Your task to perform on an android device: change timer sound Image 0: 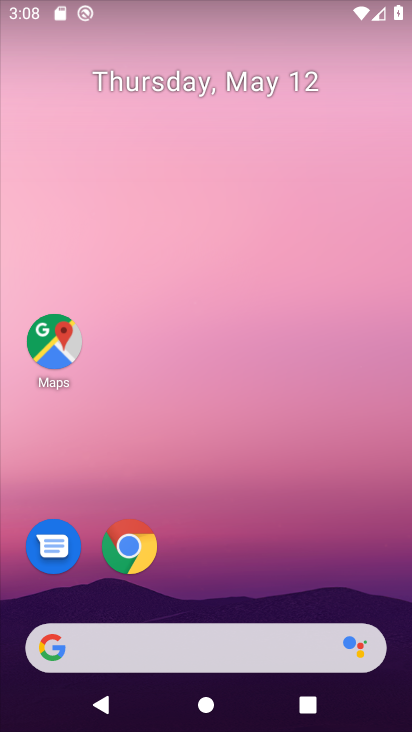
Step 0: drag from (226, 582) to (198, 269)
Your task to perform on an android device: change timer sound Image 1: 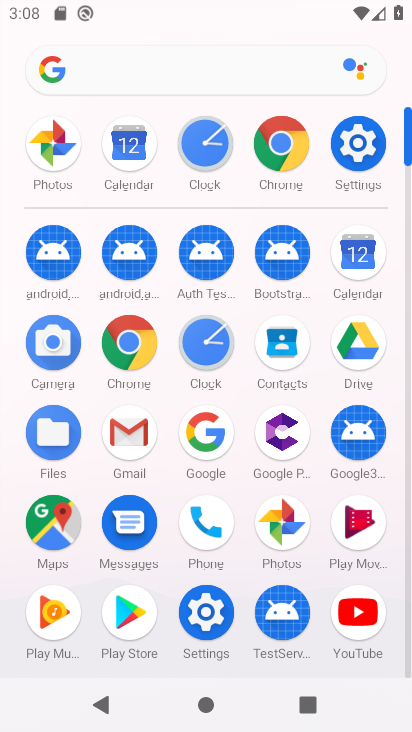
Step 1: click (209, 335)
Your task to perform on an android device: change timer sound Image 2: 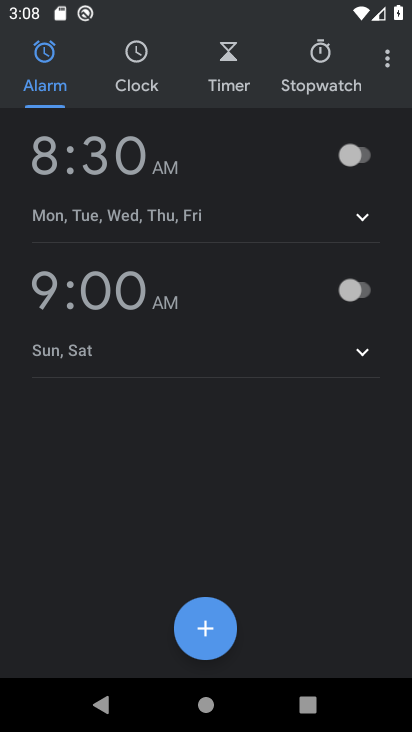
Step 2: click (380, 66)
Your task to perform on an android device: change timer sound Image 3: 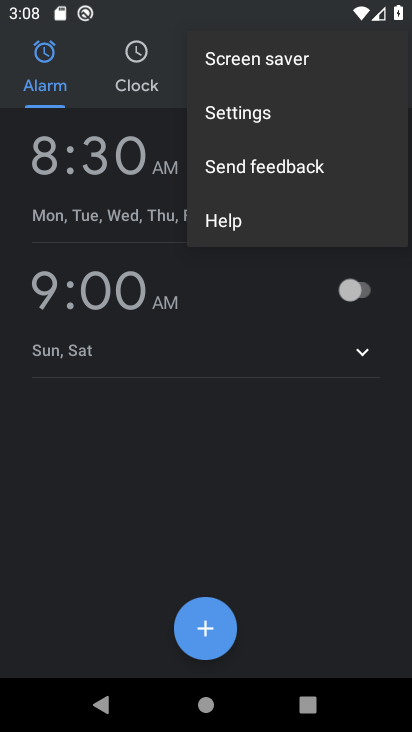
Step 3: click (285, 108)
Your task to perform on an android device: change timer sound Image 4: 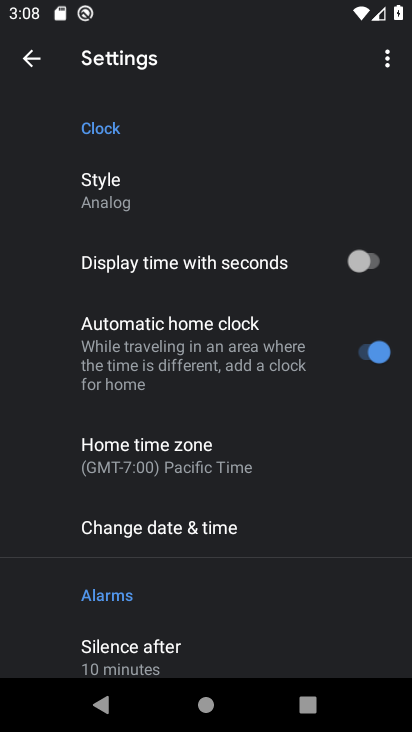
Step 4: drag from (234, 563) to (274, 318)
Your task to perform on an android device: change timer sound Image 5: 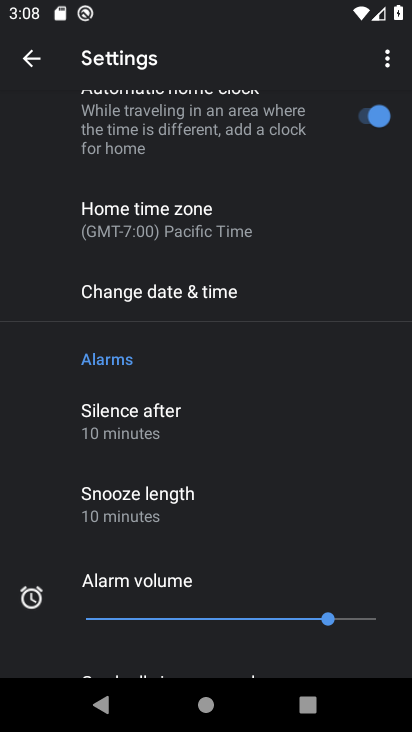
Step 5: drag from (256, 579) to (308, 258)
Your task to perform on an android device: change timer sound Image 6: 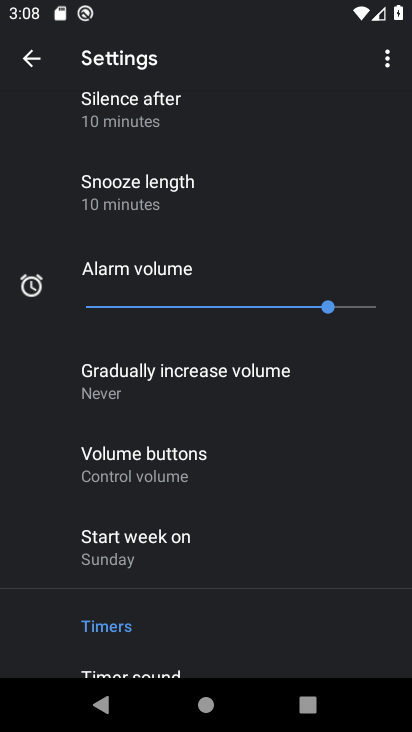
Step 6: drag from (145, 626) to (194, 321)
Your task to perform on an android device: change timer sound Image 7: 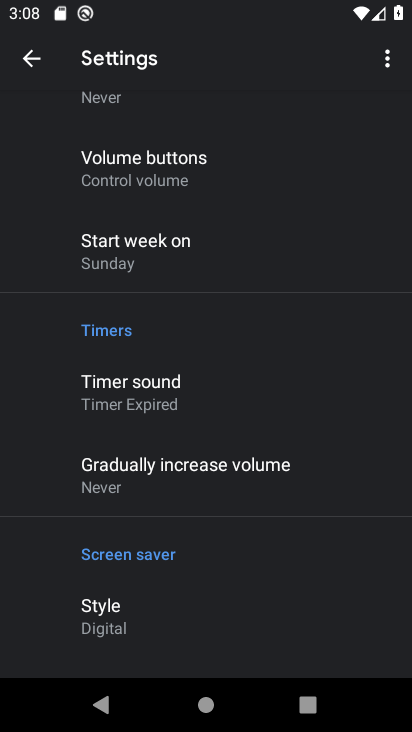
Step 7: drag from (173, 579) to (245, 253)
Your task to perform on an android device: change timer sound Image 8: 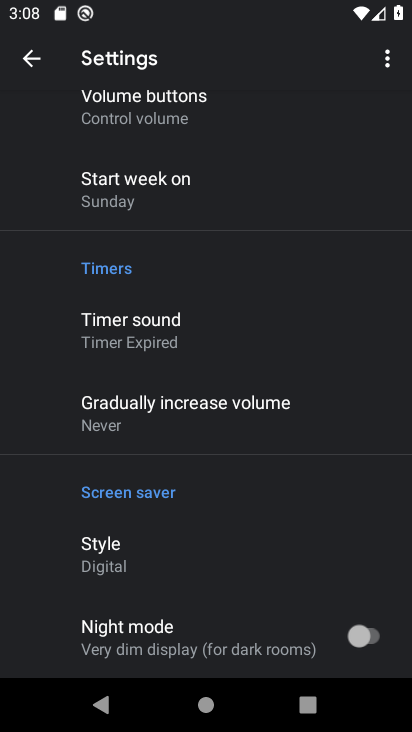
Step 8: click (164, 322)
Your task to perform on an android device: change timer sound Image 9: 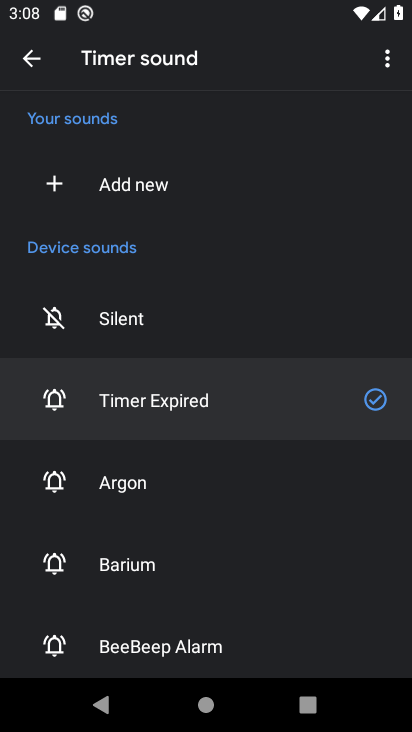
Step 9: click (134, 546)
Your task to perform on an android device: change timer sound Image 10: 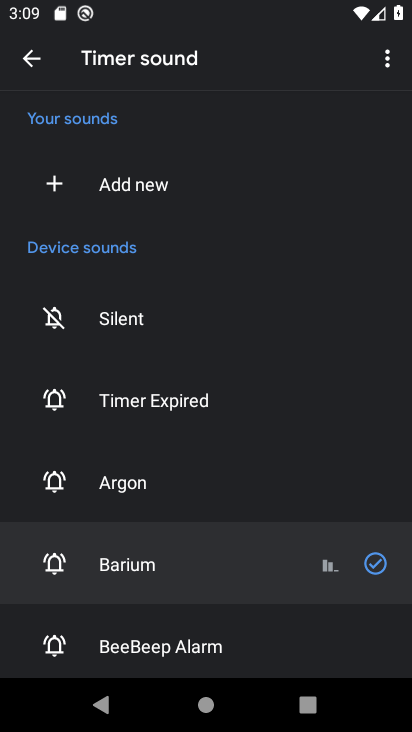
Step 10: task complete